Your task to perform on an android device: Open accessibility settings Image 0: 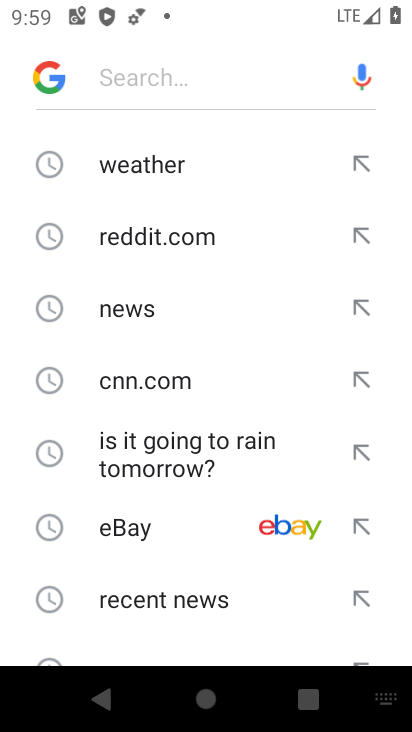
Step 0: press home button
Your task to perform on an android device: Open accessibility settings Image 1: 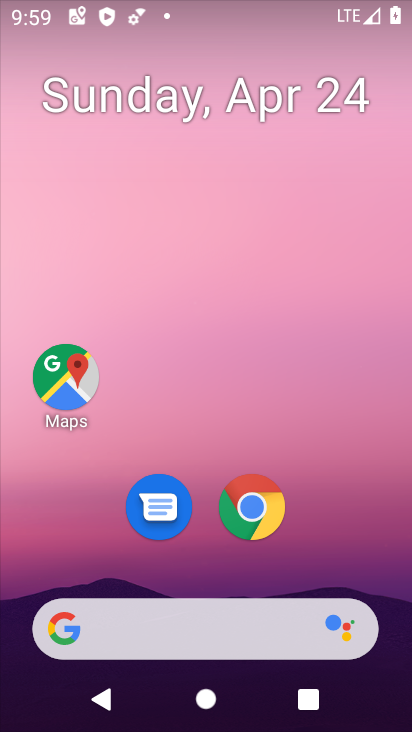
Step 1: drag from (208, 570) to (201, 144)
Your task to perform on an android device: Open accessibility settings Image 2: 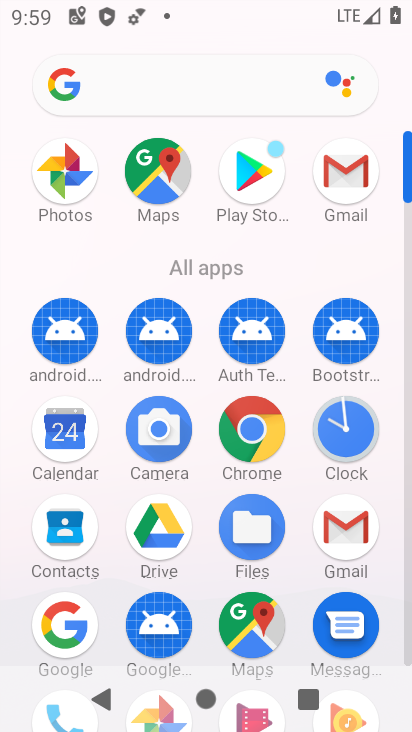
Step 2: drag from (215, 617) to (238, 215)
Your task to perform on an android device: Open accessibility settings Image 3: 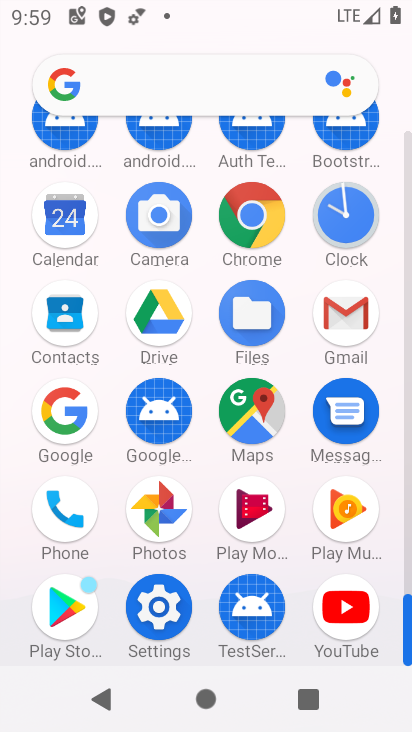
Step 3: click (157, 602)
Your task to perform on an android device: Open accessibility settings Image 4: 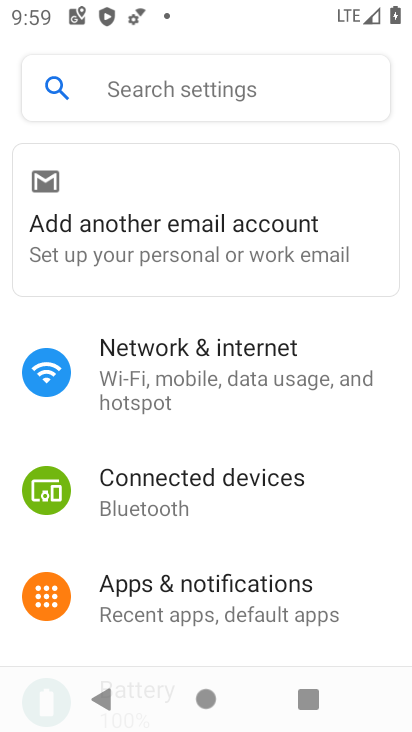
Step 4: drag from (185, 493) to (194, 146)
Your task to perform on an android device: Open accessibility settings Image 5: 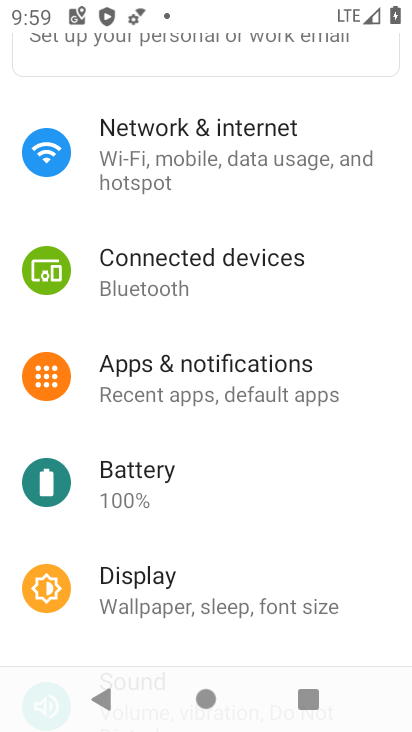
Step 5: drag from (214, 631) to (241, 291)
Your task to perform on an android device: Open accessibility settings Image 6: 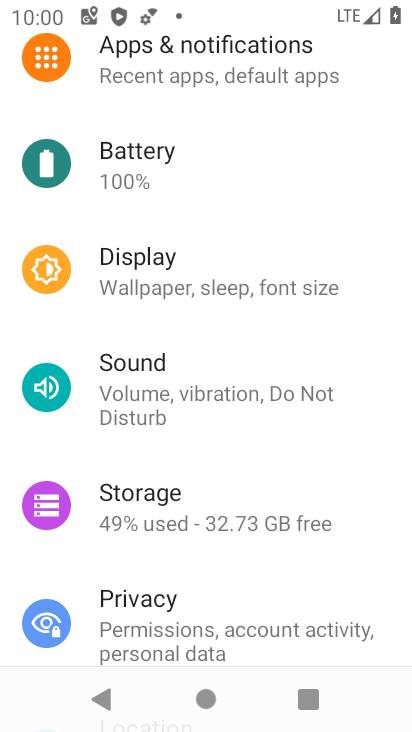
Step 6: drag from (213, 589) to (259, 191)
Your task to perform on an android device: Open accessibility settings Image 7: 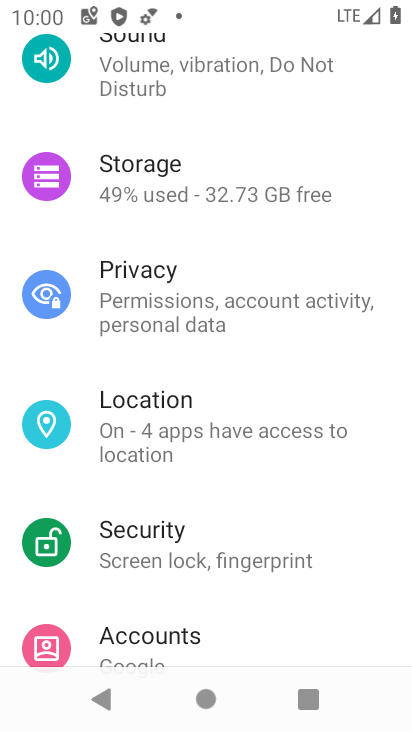
Step 7: drag from (222, 621) to (240, 178)
Your task to perform on an android device: Open accessibility settings Image 8: 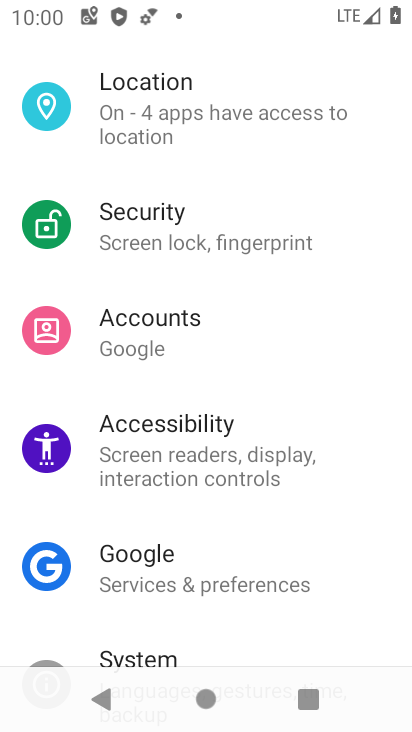
Step 8: click (194, 443)
Your task to perform on an android device: Open accessibility settings Image 9: 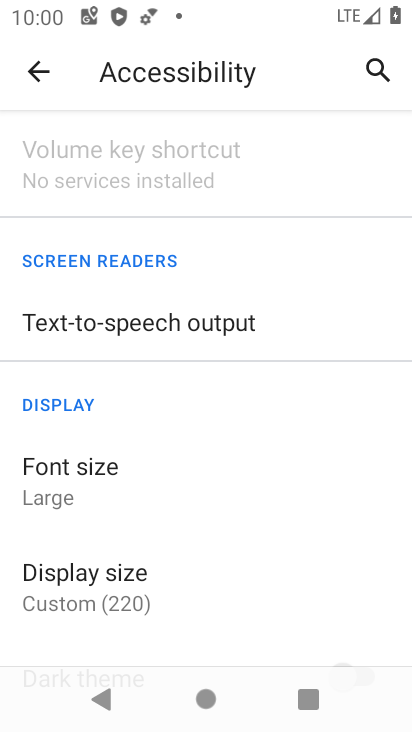
Step 9: task complete